Your task to perform on an android device: Check my email inbox Image 0: 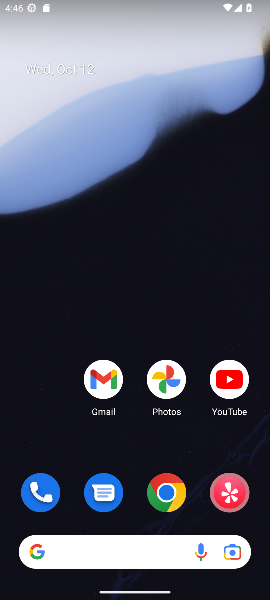
Step 0: drag from (131, 482) to (147, 384)
Your task to perform on an android device: Check my email inbox Image 1: 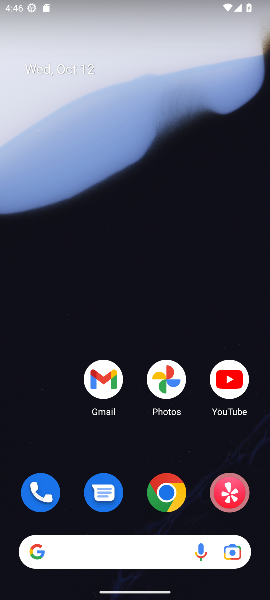
Step 1: click (103, 388)
Your task to perform on an android device: Check my email inbox Image 2: 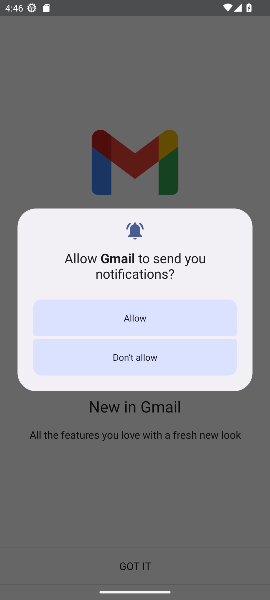
Step 2: click (140, 357)
Your task to perform on an android device: Check my email inbox Image 3: 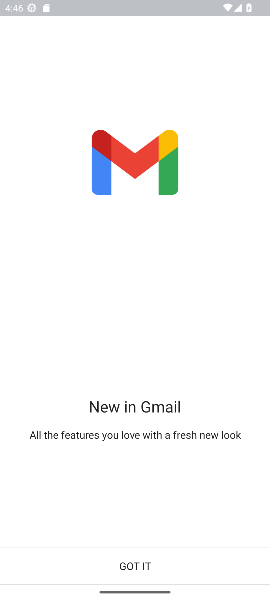
Step 3: click (129, 568)
Your task to perform on an android device: Check my email inbox Image 4: 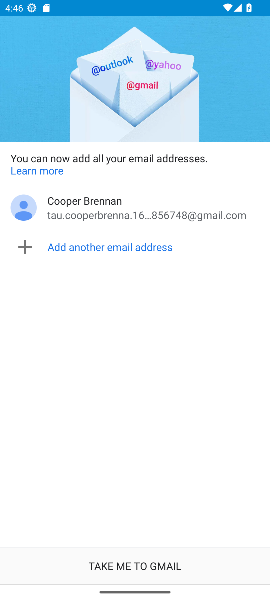
Step 4: click (129, 568)
Your task to perform on an android device: Check my email inbox Image 5: 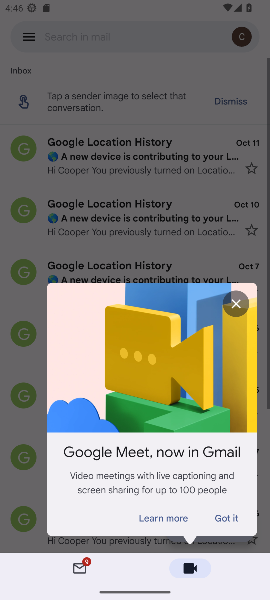
Step 5: click (239, 515)
Your task to perform on an android device: Check my email inbox Image 6: 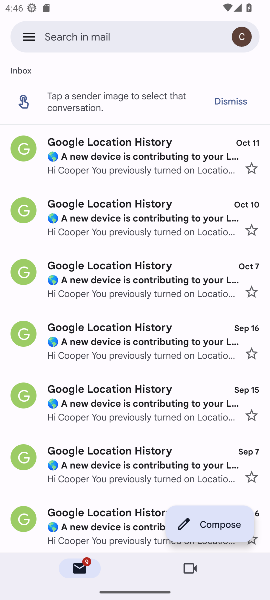
Step 6: task complete